Your task to perform on an android device: remove spam from my inbox in the gmail app Image 0: 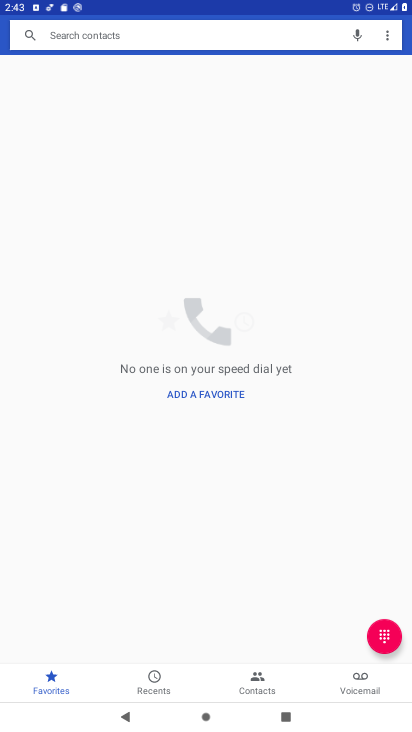
Step 0: press home button
Your task to perform on an android device: remove spam from my inbox in the gmail app Image 1: 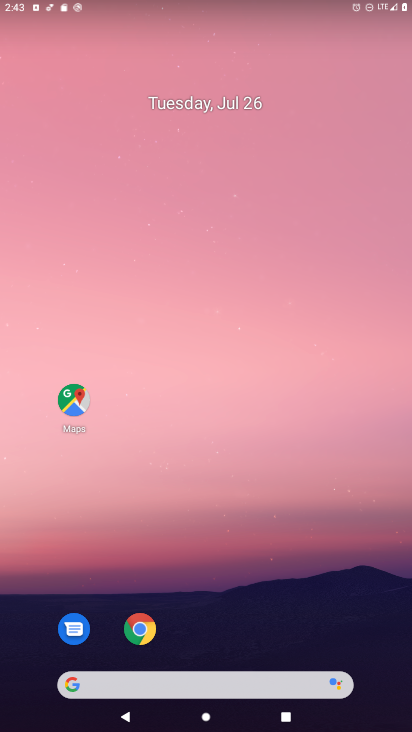
Step 1: drag from (383, 671) to (333, 185)
Your task to perform on an android device: remove spam from my inbox in the gmail app Image 2: 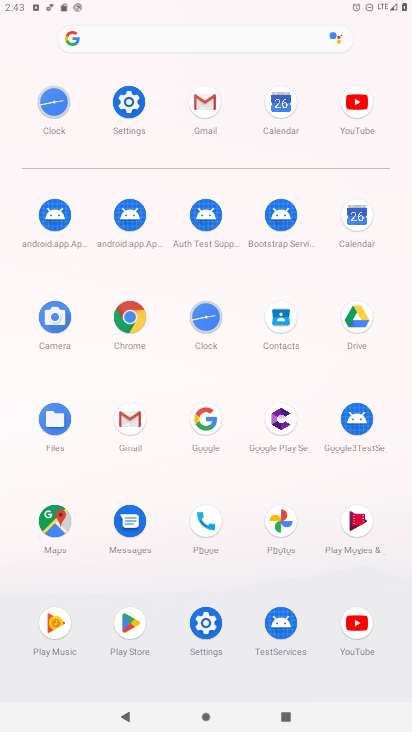
Step 2: click (131, 418)
Your task to perform on an android device: remove spam from my inbox in the gmail app Image 3: 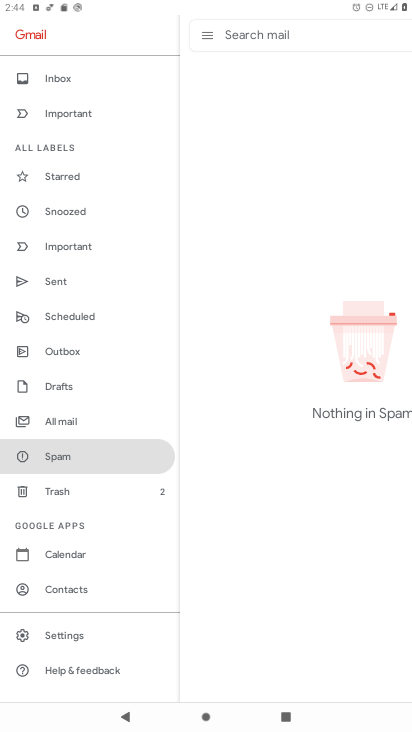
Step 3: click (74, 453)
Your task to perform on an android device: remove spam from my inbox in the gmail app Image 4: 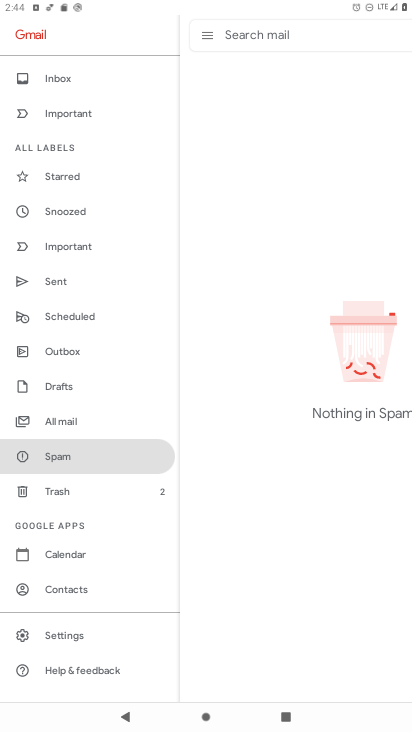
Step 4: task complete